Your task to perform on an android device: change the upload size in google photos Image 0: 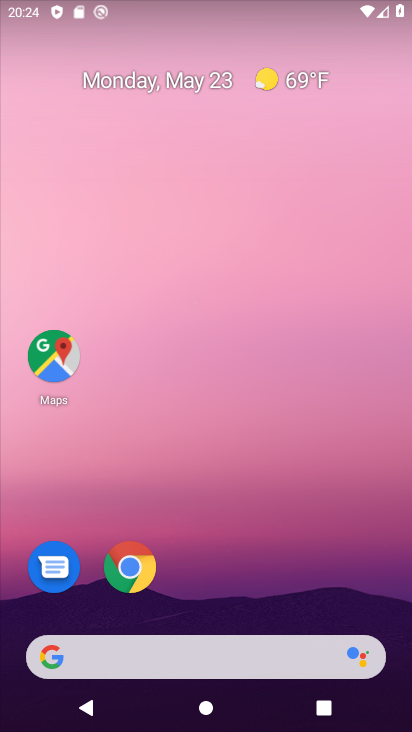
Step 0: drag from (231, 600) to (274, 47)
Your task to perform on an android device: change the upload size in google photos Image 1: 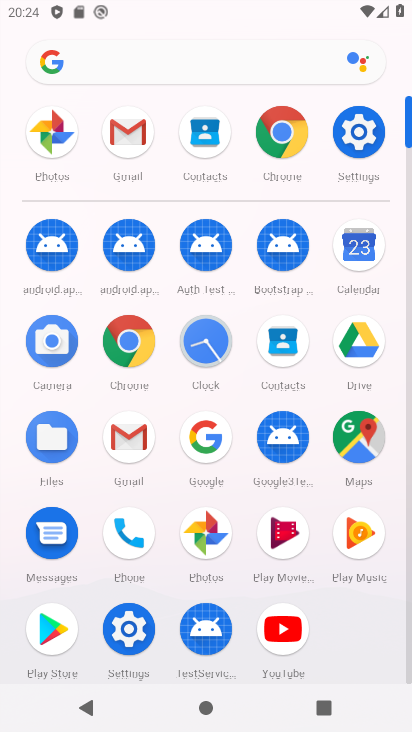
Step 1: click (212, 547)
Your task to perform on an android device: change the upload size in google photos Image 2: 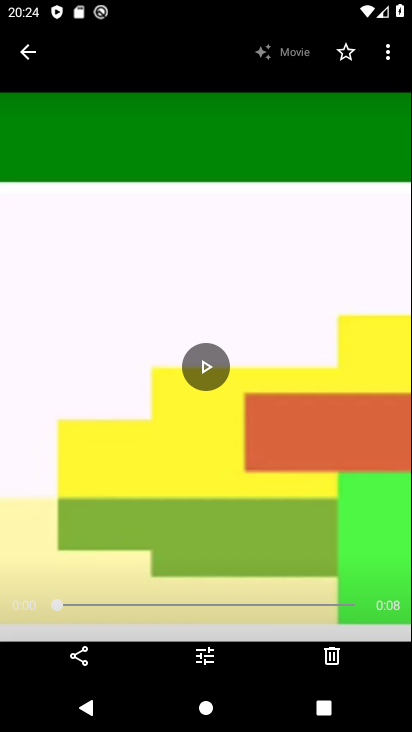
Step 2: click (24, 56)
Your task to perform on an android device: change the upload size in google photos Image 3: 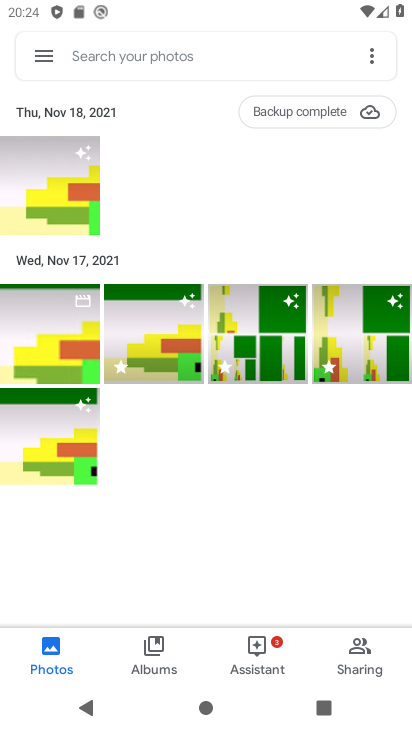
Step 3: click (31, 64)
Your task to perform on an android device: change the upload size in google photos Image 4: 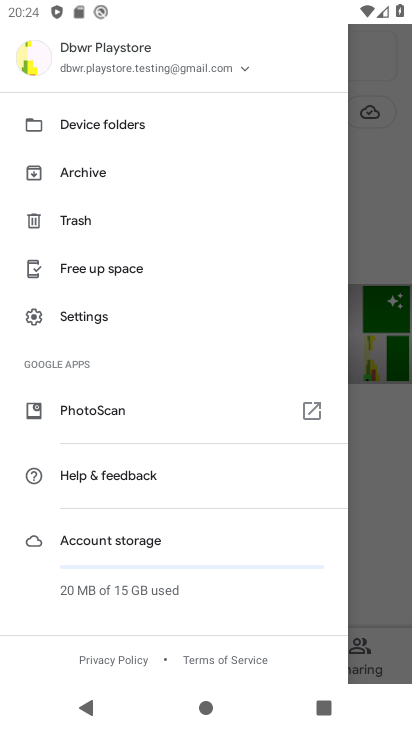
Step 4: click (102, 321)
Your task to perform on an android device: change the upload size in google photos Image 5: 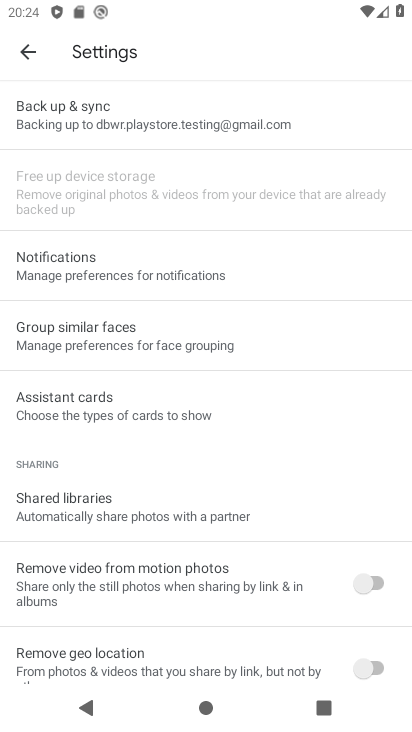
Step 5: click (176, 127)
Your task to perform on an android device: change the upload size in google photos Image 6: 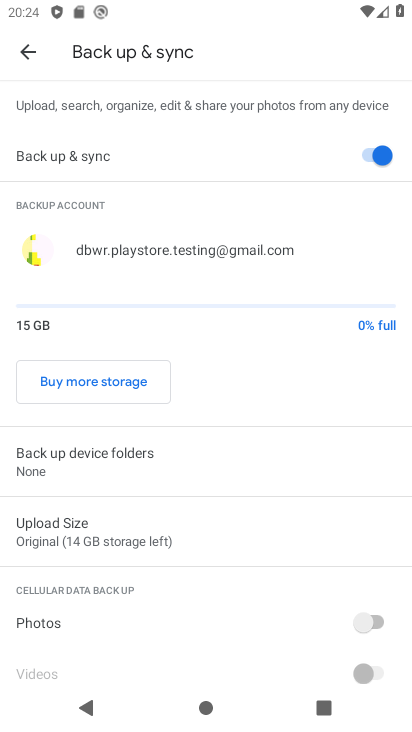
Step 6: click (178, 543)
Your task to perform on an android device: change the upload size in google photos Image 7: 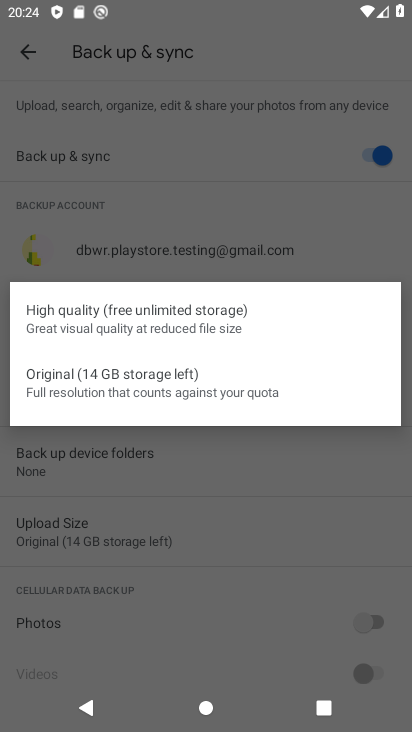
Step 7: click (132, 328)
Your task to perform on an android device: change the upload size in google photos Image 8: 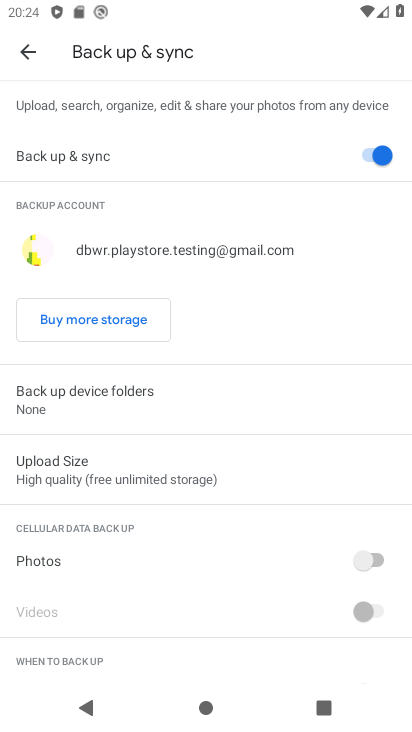
Step 8: task complete